Your task to perform on an android device: Show the shopping cart on newegg. Add macbook to the cart on newegg Image 0: 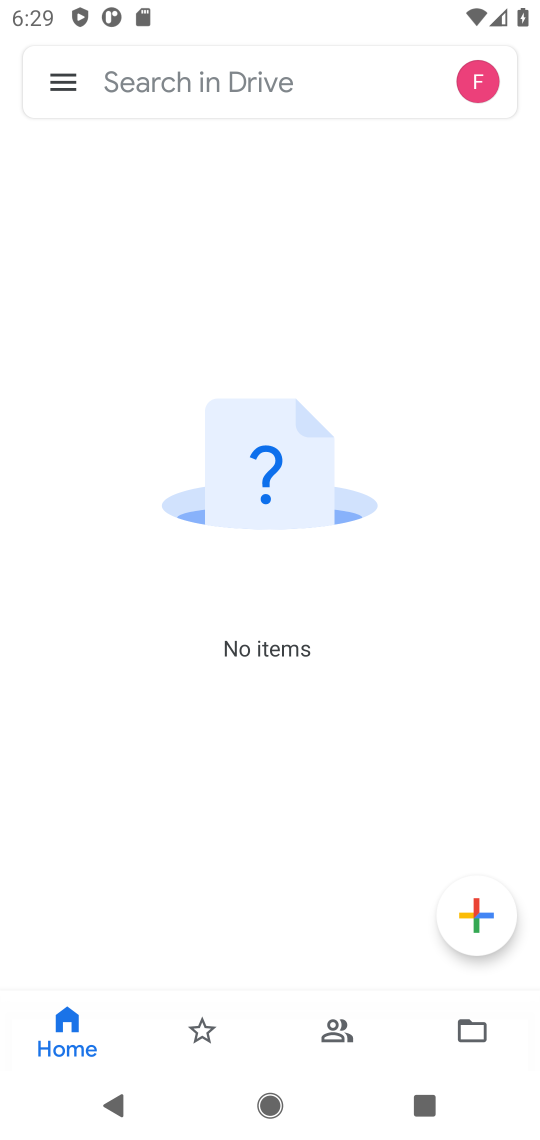
Step 0: press home button
Your task to perform on an android device: Show the shopping cart on newegg. Add macbook to the cart on newegg Image 1: 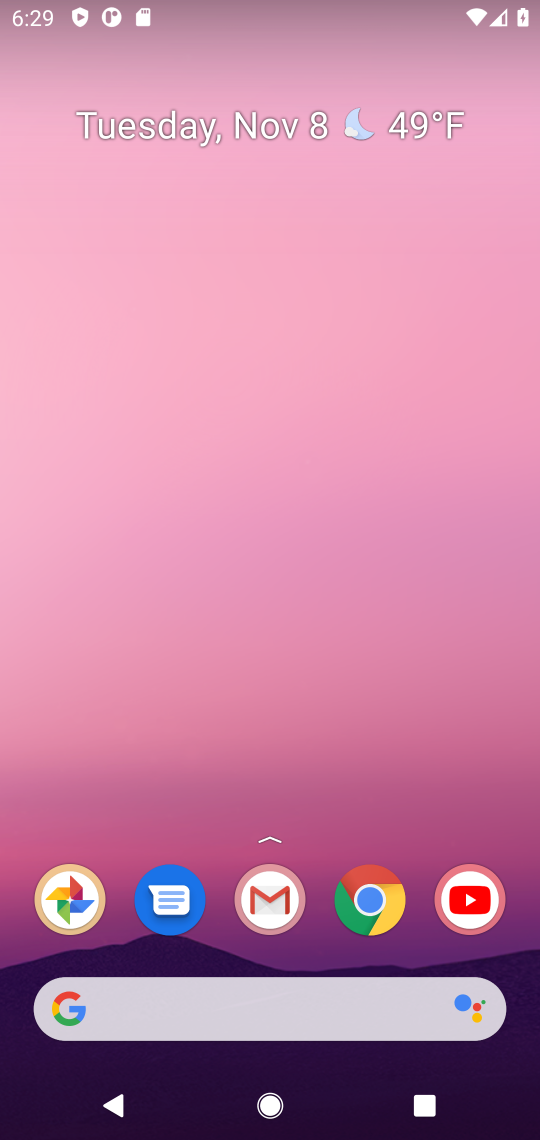
Step 1: drag from (268, 968) to (358, 400)
Your task to perform on an android device: Show the shopping cart on newegg. Add macbook to the cart on newegg Image 2: 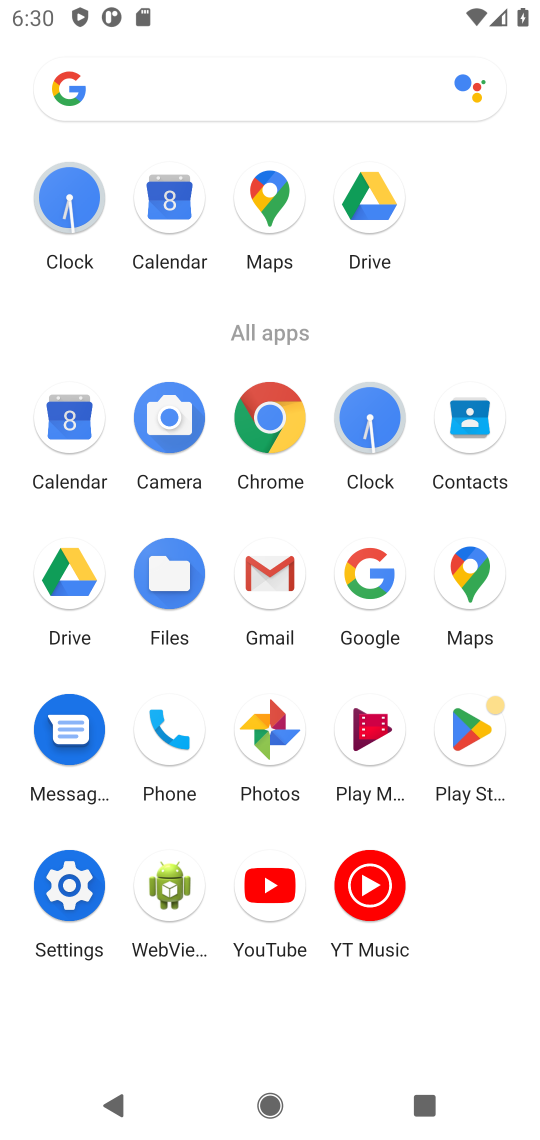
Step 2: click (364, 565)
Your task to perform on an android device: Show the shopping cart on newegg. Add macbook to the cart on newegg Image 3: 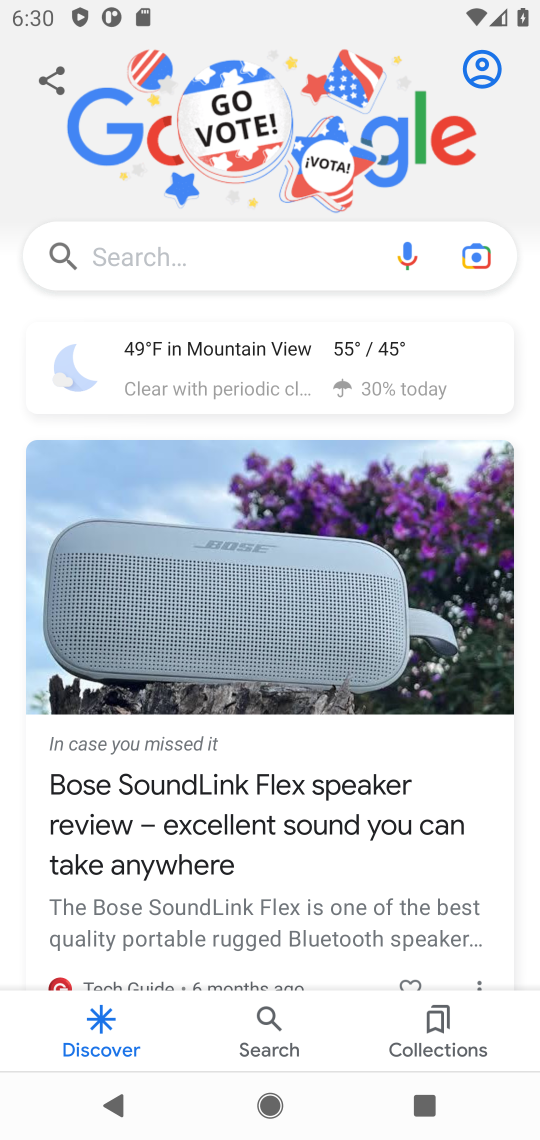
Step 3: click (243, 254)
Your task to perform on an android device: Show the shopping cart on newegg. Add macbook to the cart on newegg Image 4: 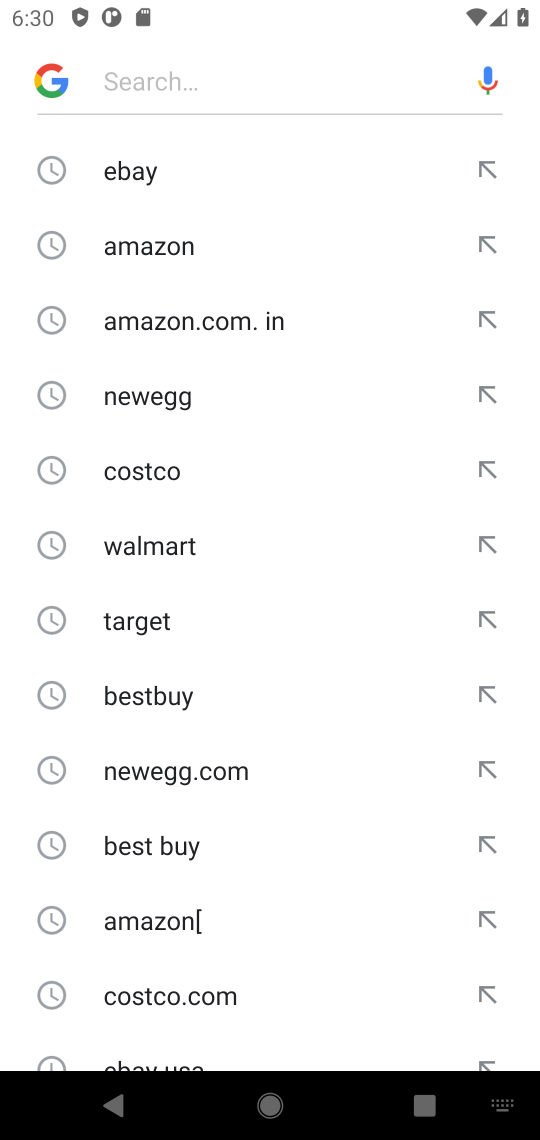
Step 4: type "newegg "
Your task to perform on an android device: Show the shopping cart on newegg. Add macbook to the cart on newegg Image 5: 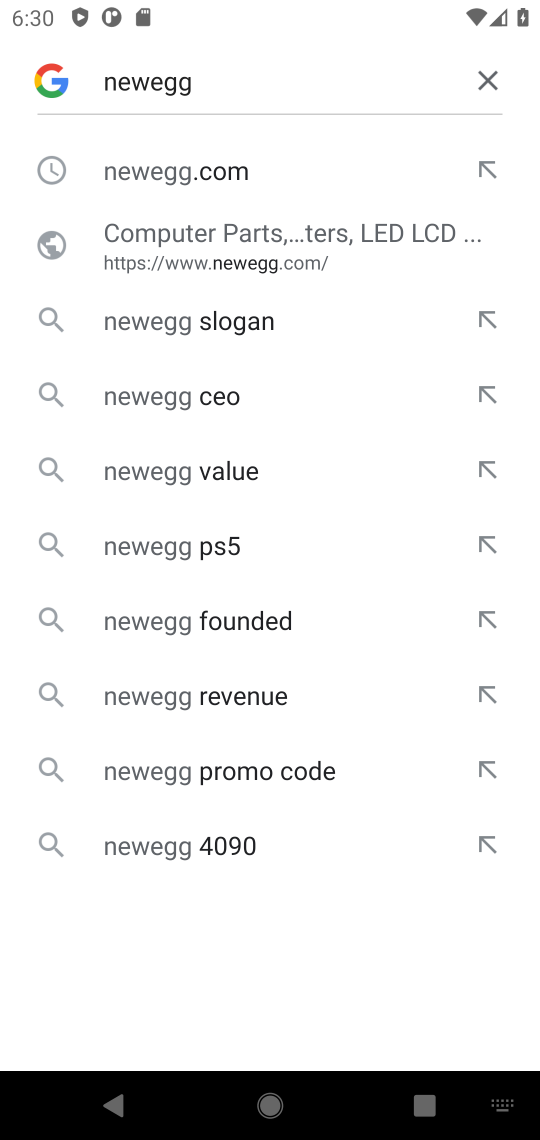
Step 5: click (175, 187)
Your task to perform on an android device: Show the shopping cart on newegg. Add macbook to the cart on newegg Image 6: 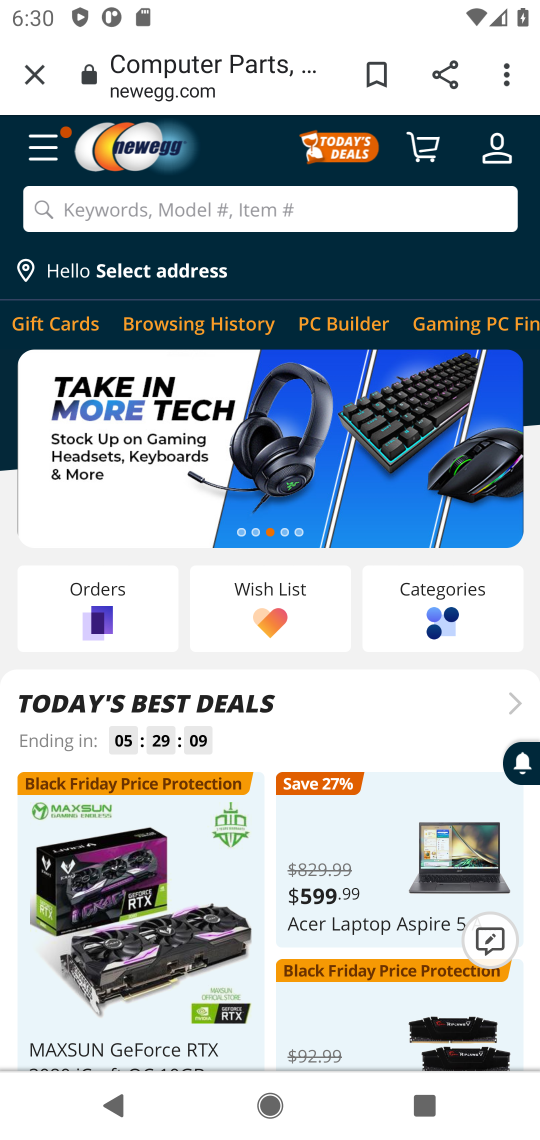
Step 6: click (410, 133)
Your task to perform on an android device: Show the shopping cart on newegg. Add macbook to the cart on newegg Image 7: 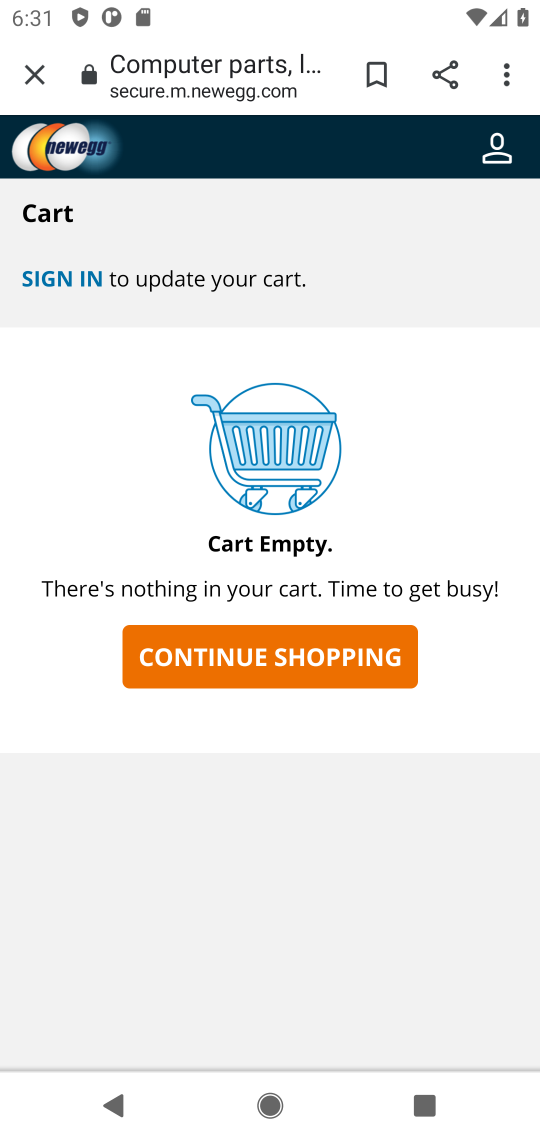
Step 7: task complete